Your task to perform on an android device: turn on airplane mode Image 0: 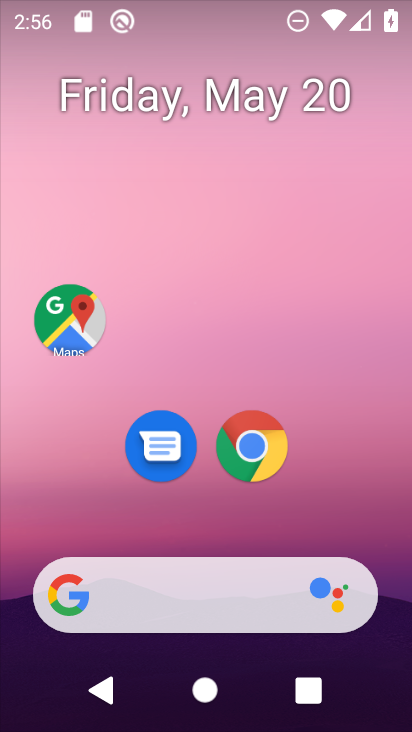
Step 0: drag from (363, 544) to (384, 427)
Your task to perform on an android device: turn on airplane mode Image 1: 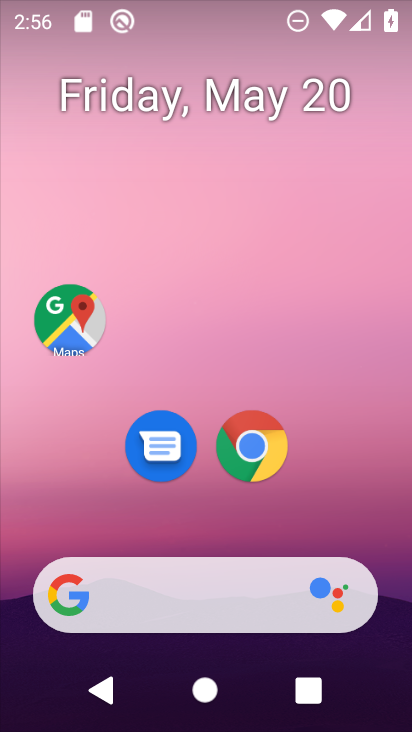
Step 1: drag from (377, 531) to (332, 9)
Your task to perform on an android device: turn on airplane mode Image 2: 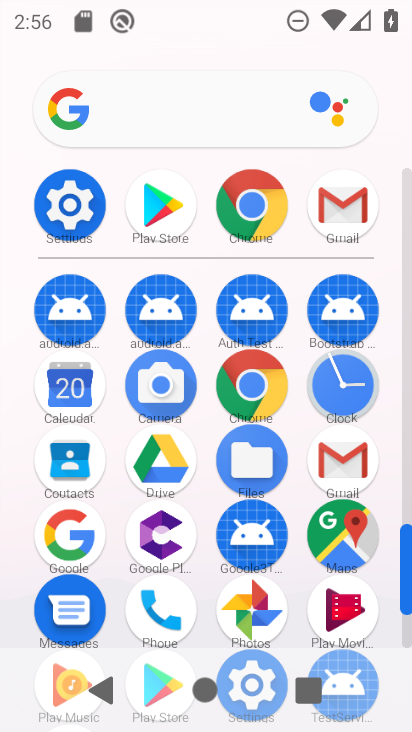
Step 2: click (63, 201)
Your task to perform on an android device: turn on airplane mode Image 3: 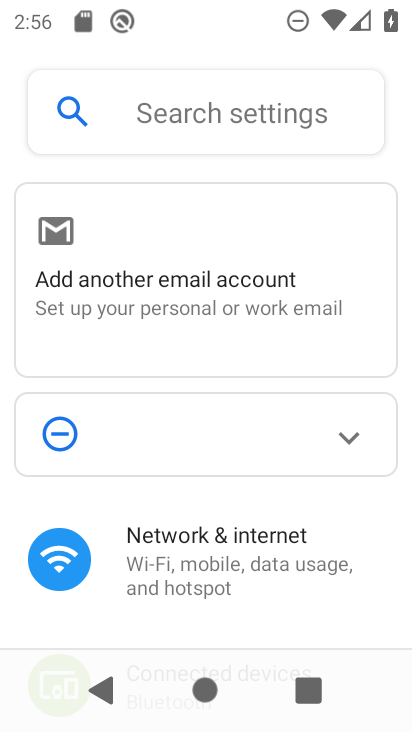
Step 3: drag from (357, 543) to (336, 267)
Your task to perform on an android device: turn on airplane mode Image 4: 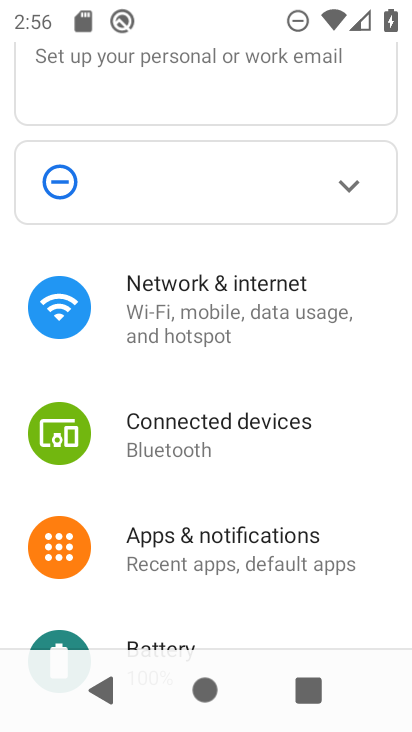
Step 4: click (182, 319)
Your task to perform on an android device: turn on airplane mode Image 5: 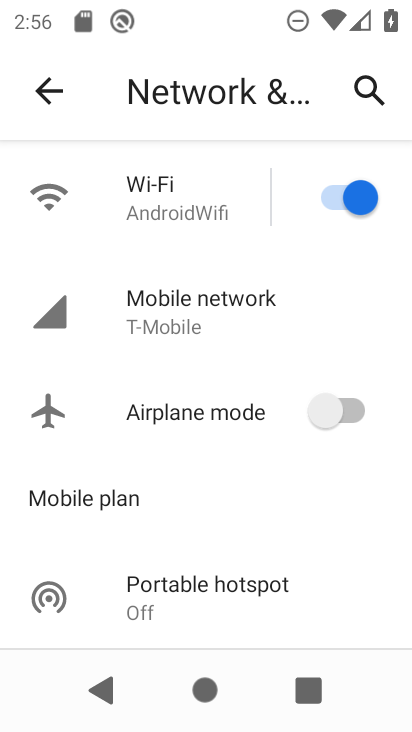
Step 5: click (326, 416)
Your task to perform on an android device: turn on airplane mode Image 6: 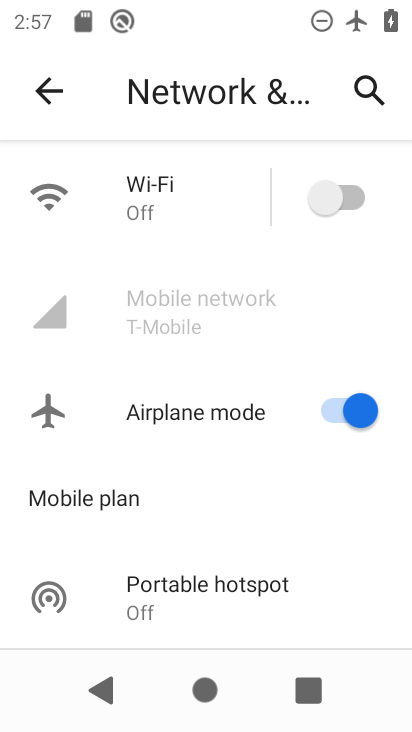
Step 6: task complete